Your task to perform on an android device: Is it going to rain this weekend? Image 0: 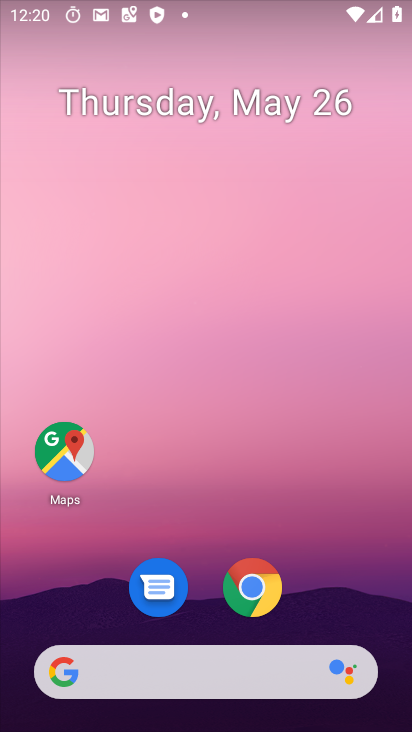
Step 0: drag from (313, 661) to (244, 142)
Your task to perform on an android device: Is it going to rain this weekend? Image 1: 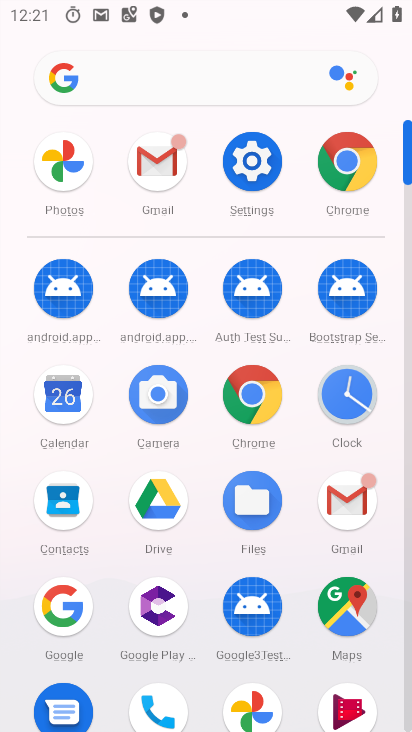
Step 1: click (173, 87)
Your task to perform on an android device: Is it going to rain this weekend? Image 2: 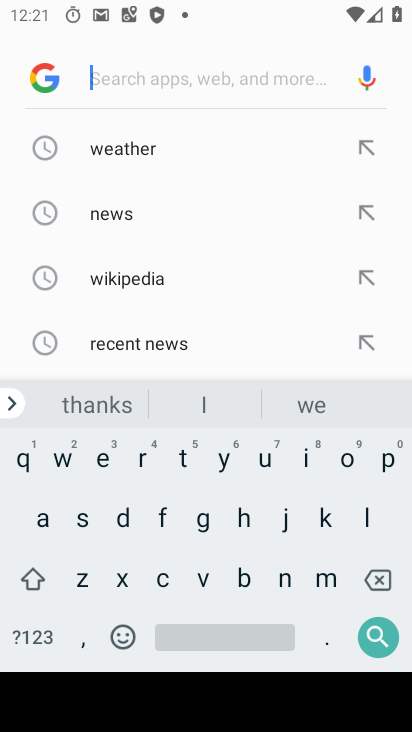
Step 2: click (140, 159)
Your task to perform on an android device: Is it going to rain this weekend? Image 3: 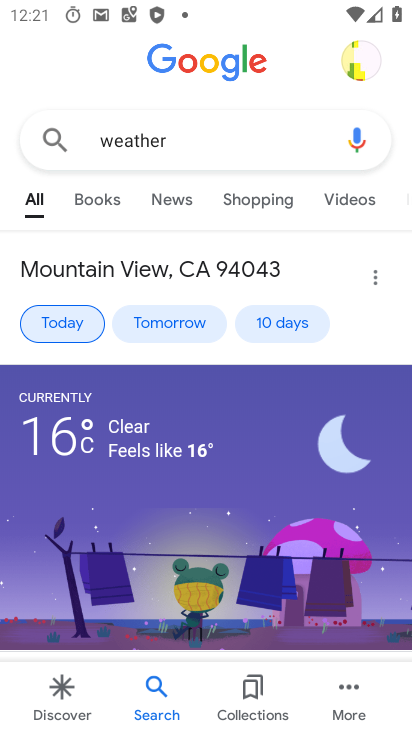
Step 3: task complete